Your task to perform on an android device: Search for "logitech g pro" on costco, select the first entry, add it to the cart, then select checkout. Image 0: 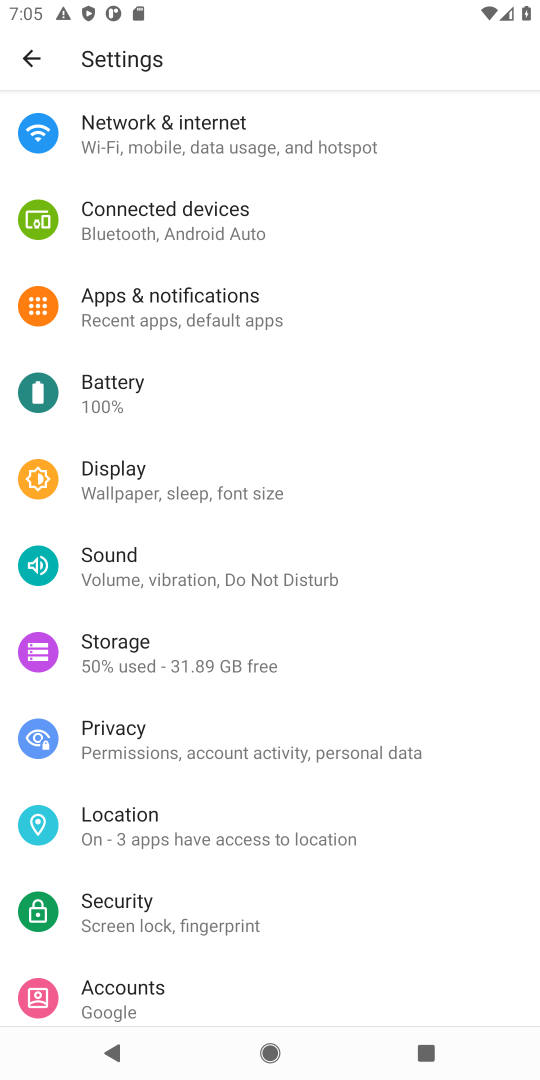
Step 0: press home button
Your task to perform on an android device: Search for "logitech g pro" on costco, select the first entry, add it to the cart, then select checkout. Image 1: 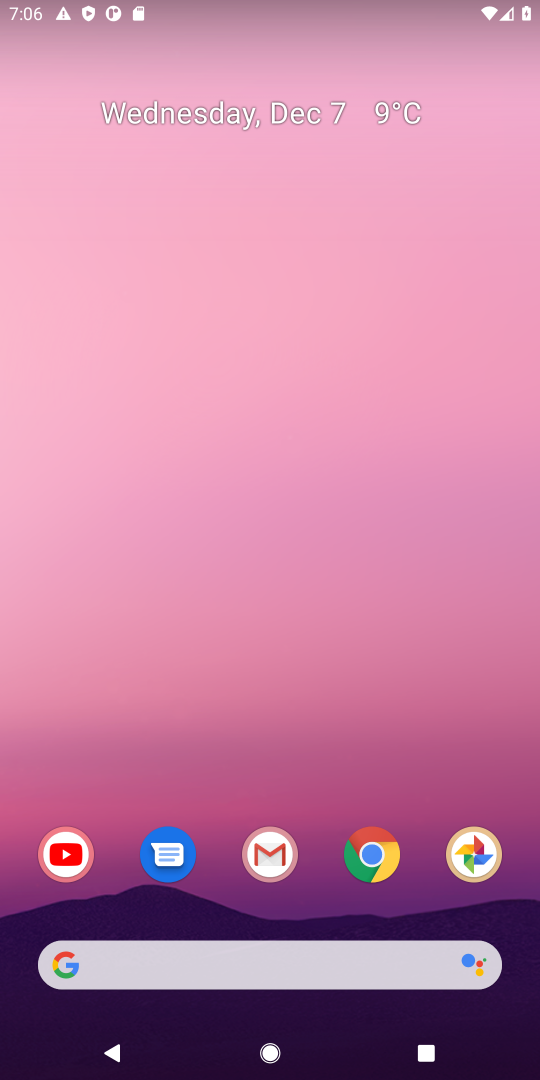
Step 1: click (196, 984)
Your task to perform on an android device: Search for "logitech g pro" on costco, select the first entry, add it to the cart, then select checkout. Image 2: 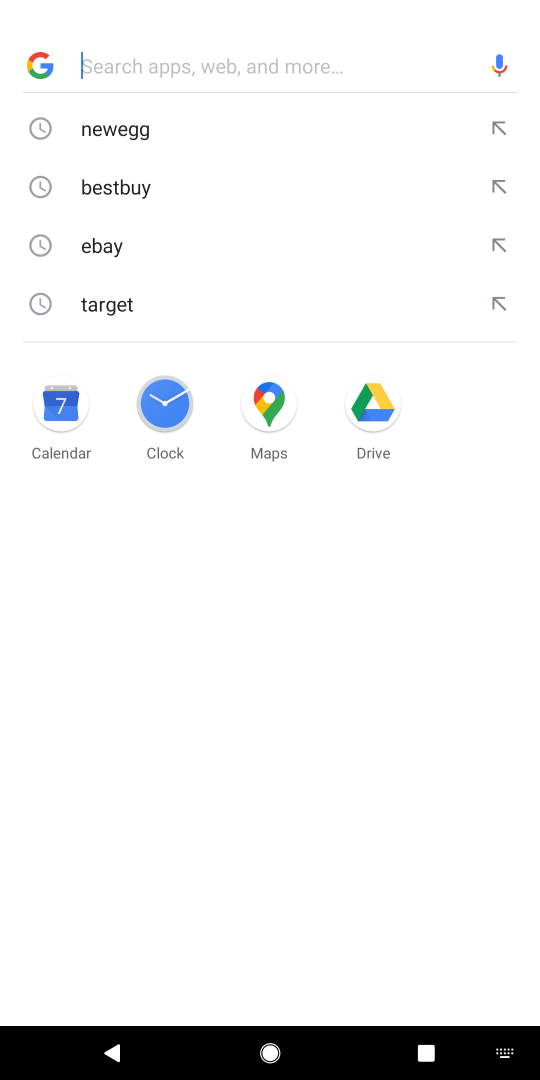
Step 2: type "costco"
Your task to perform on an android device: Search for "logitech g pro" on costco, select the first entry, add it to the cart, then select checkout. Image 3: 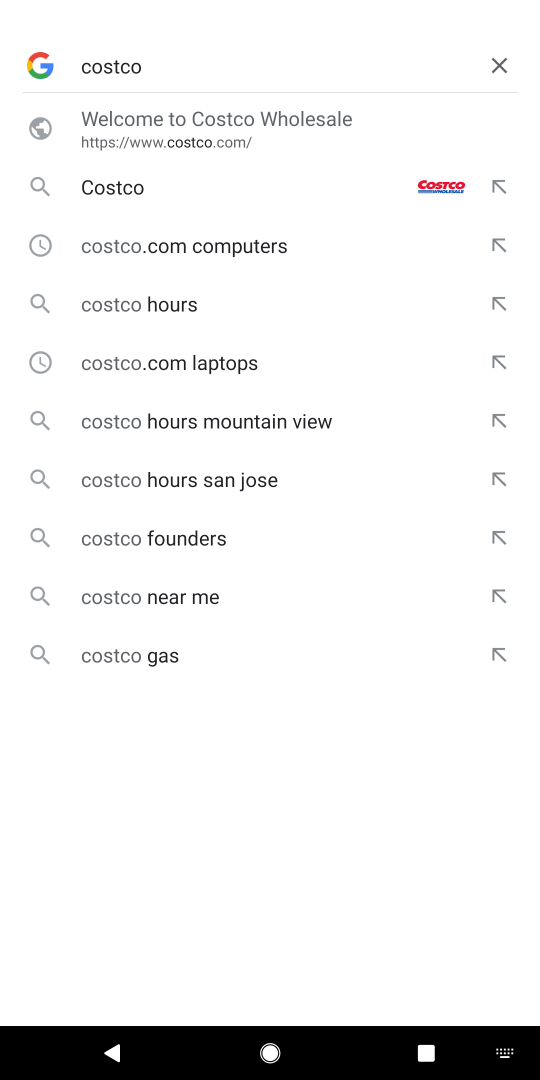
Step 3: click (139, 125)
Your task to perform on an android device: Search for "logitech g pro" on costco, select the first entry, add it to the cart, then select checkout. Image 4: 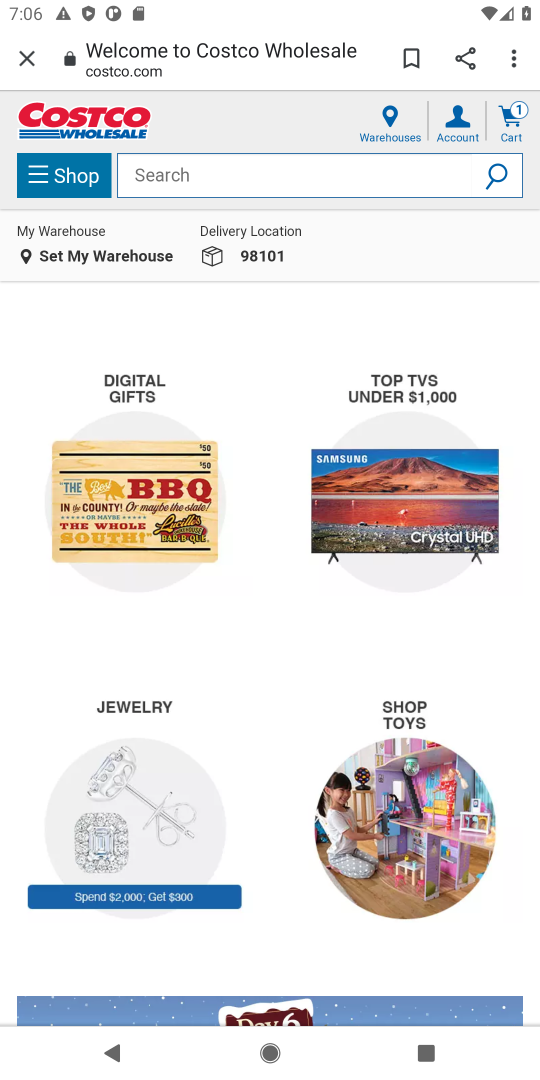
Step 4: task complete